Your task to perform on an android device: Open Wikipedia Image 0: 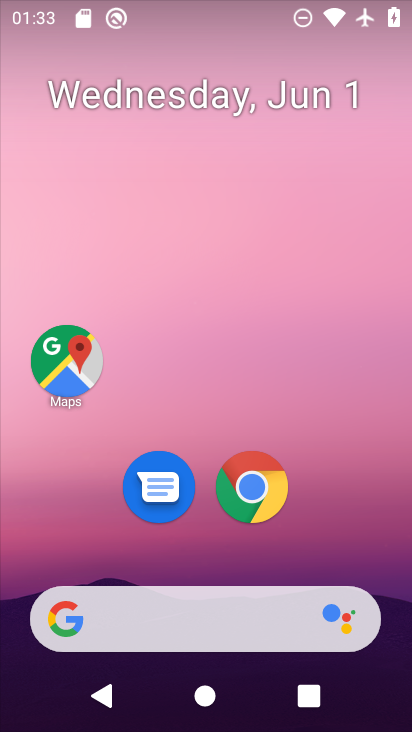
Step 0: click (245, 482)
Your task to perform on an android device: Open Wikipedia Image 1: 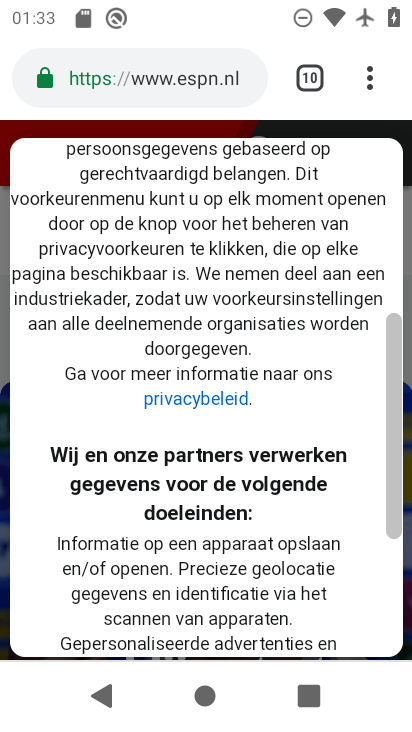
Step 1: click (372, 83)
Your task to perform on an android device: Open Wikipedia Image 2: 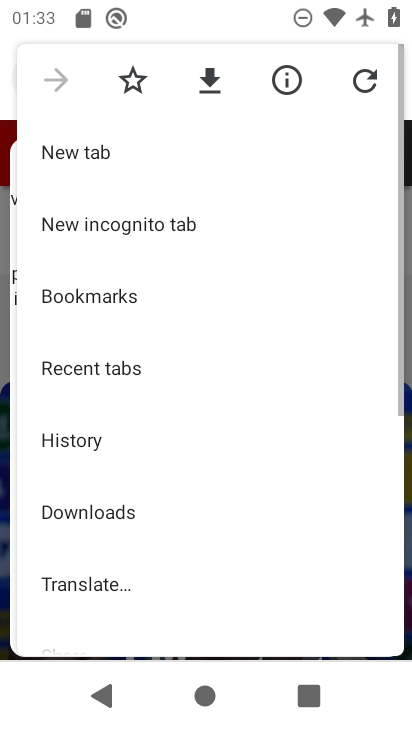
Step 2: click (100, 152)
Your task to perform on an android device: Open Wikipedia Image 3: 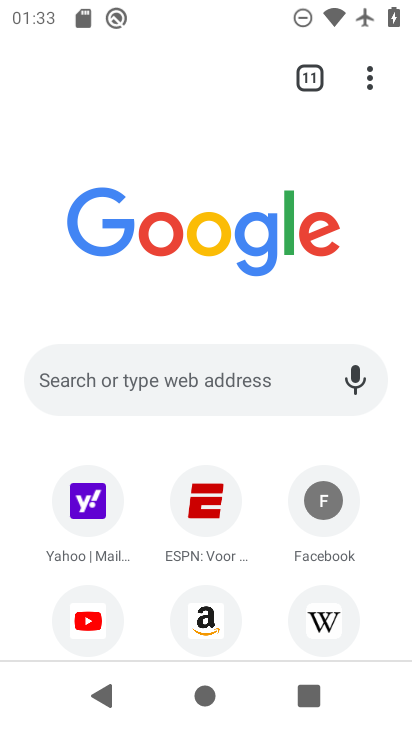
Step 3: click (317, 613)
Your task to perform on an android device: Open Wikipedia Image 4: 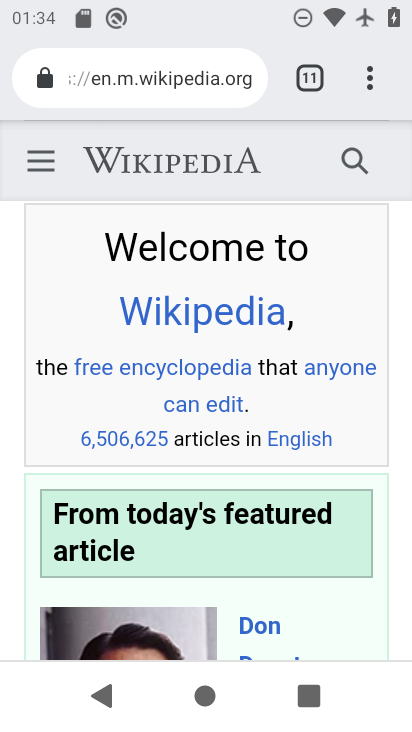
Step 4: task complete